Your task to perform on an android device: visit the assistant section in the google photos Image 0: 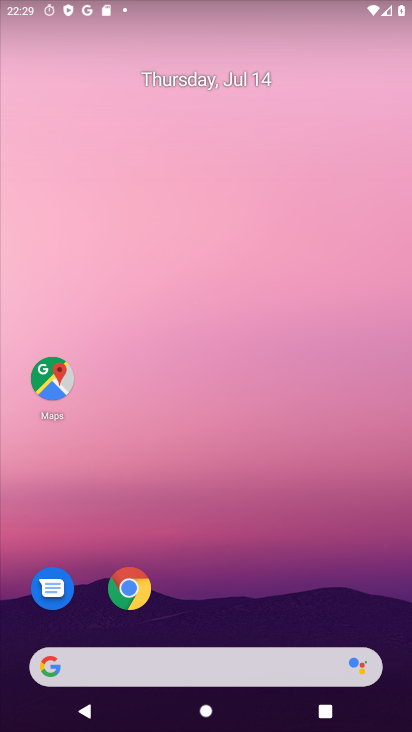
Step 0: drag from (207, 616) to (226, 172)
Your task to perform on an android device: visit the assistant section in the google photos Image 1: 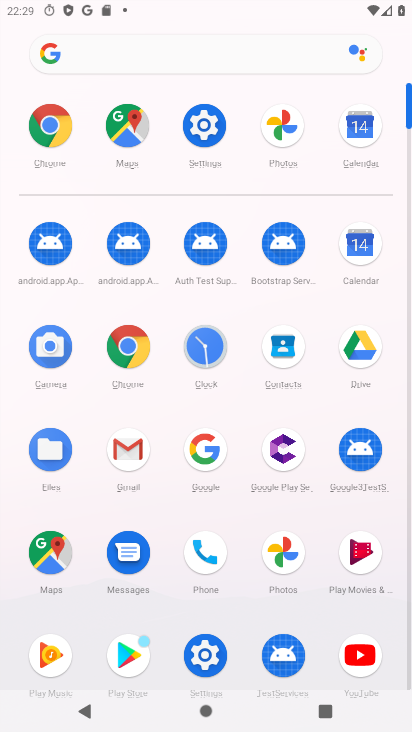
Step 1: click (282, 554)
Your task to perform on an android device: visit the assistant section in the google photos Image 2: 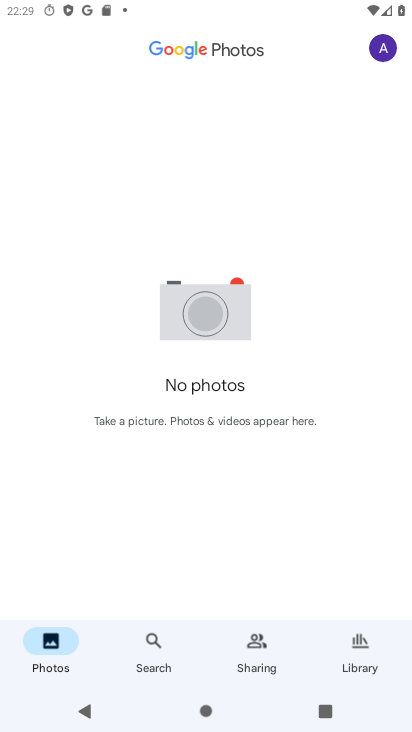
Step 2: click (386, 50)
Your task to perform on an android device: visit the assistant section in the google photos Image 3: 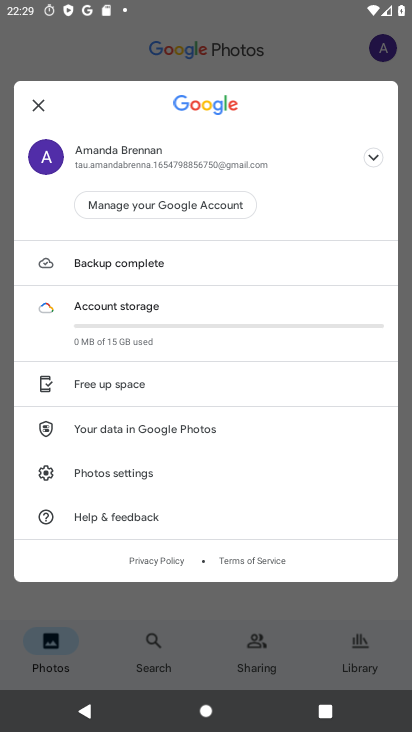
Step 3: click (114, 470)
Your task to perform on an android device: visit the assistant section in the google photos Image 4: 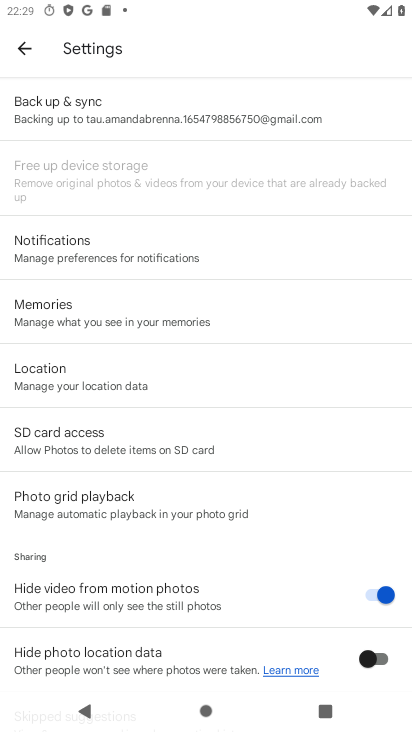
Step 4: task complete